Your task to perform on an android device: turn off wifi Image 0: 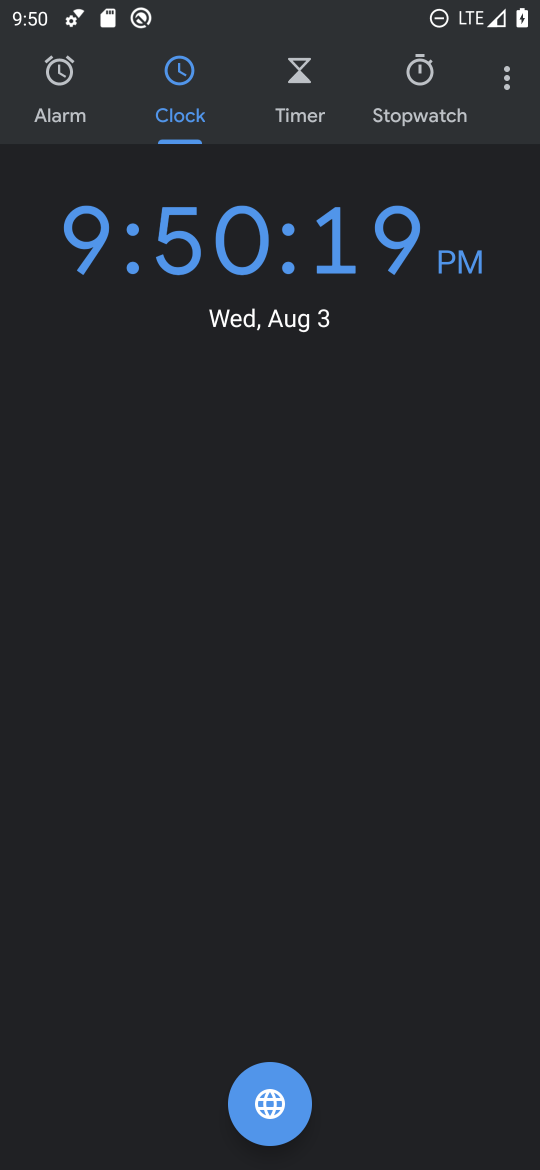
Step 0: press home button
Your task to perform on an android device: turn off wifi Image 1: 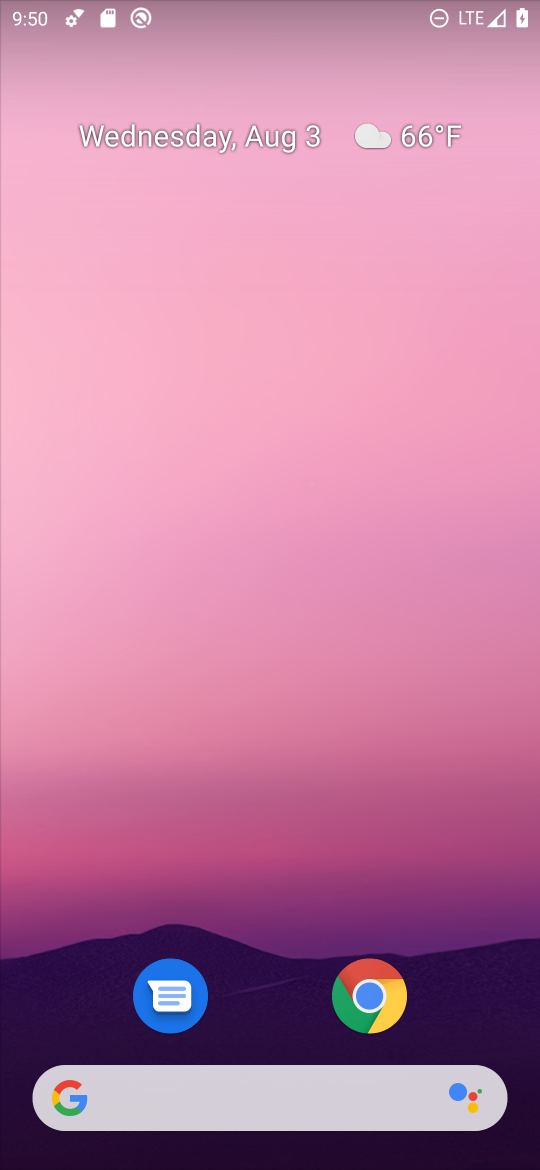
Step 1: drag from (246, 822) to (231, 3)
Your task to perform on an android device: turn off wifi Image 2: 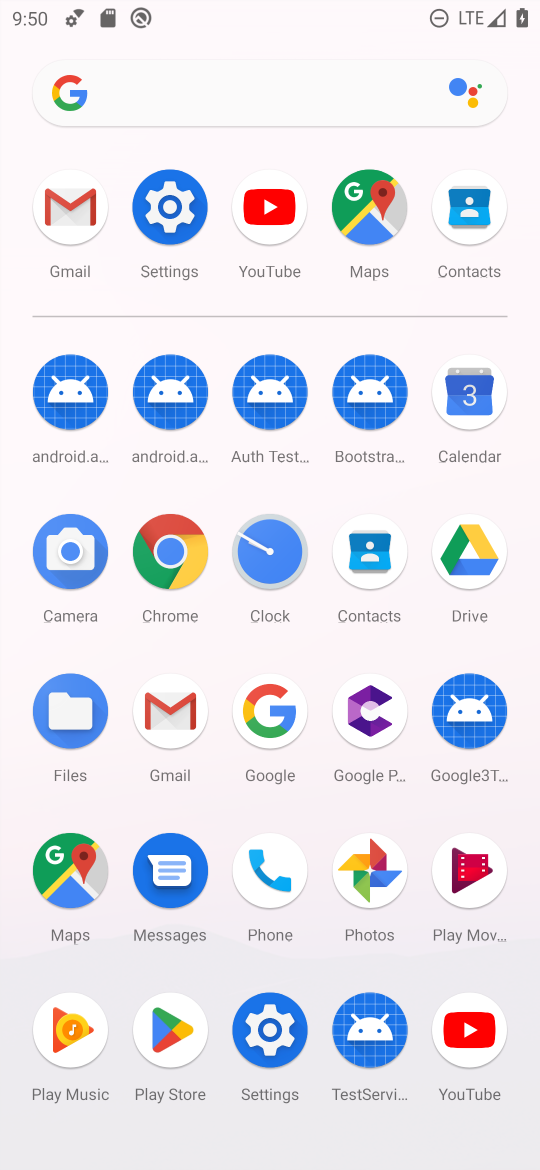
Step 2: click (170, 212)
Your task to perform on an android device: turn off wifi Image 3: 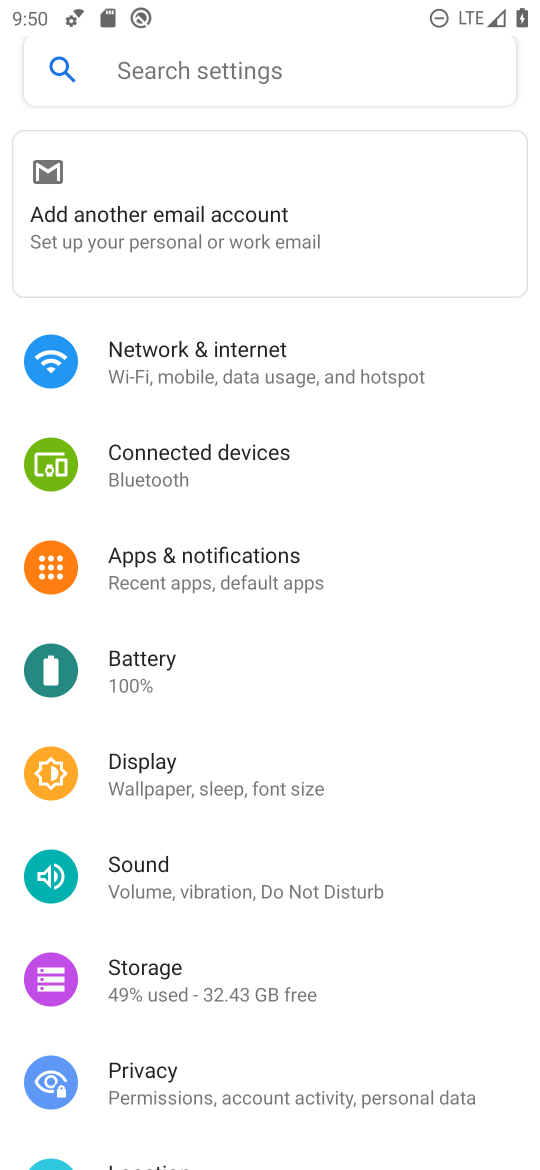
Step 3: click (201, 348)
Your task to perform on an android device: turn off wifi Image 4: 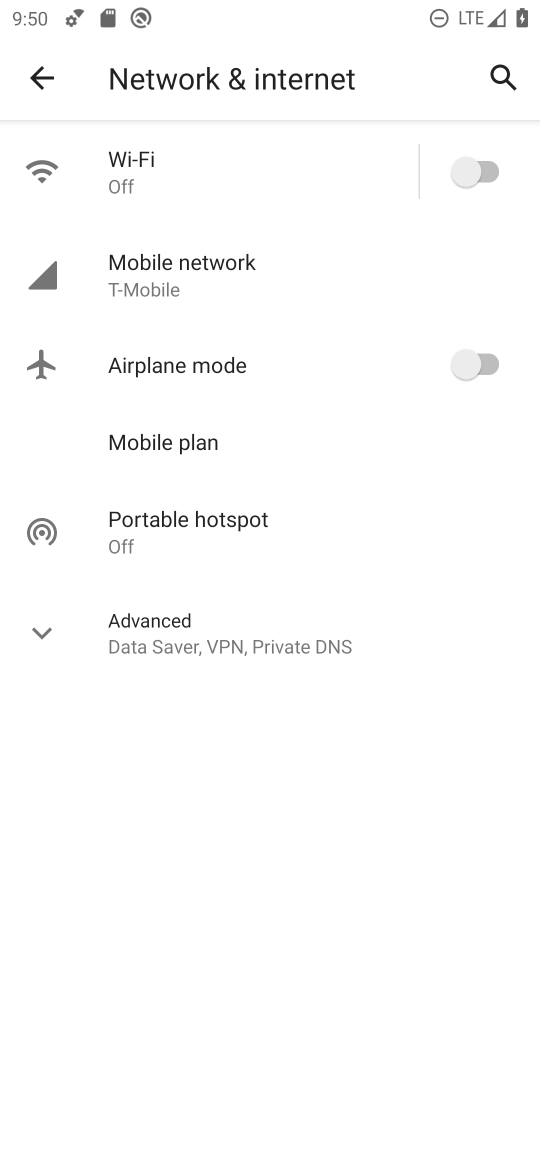
Step 4: task complete